Your task to perform on an android device: empty trash in google photos Image 0: 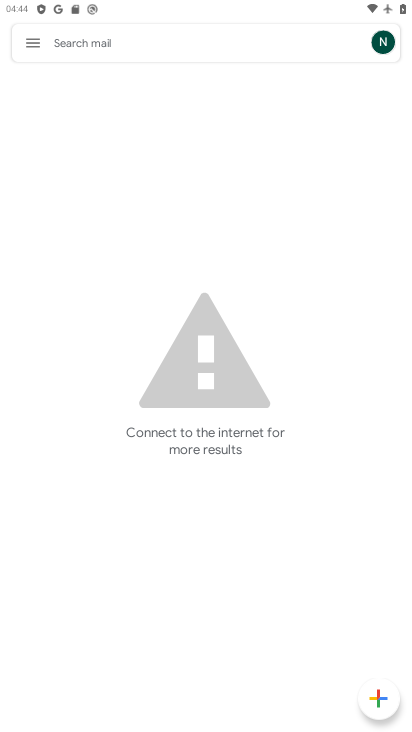
Step 0: press home button
Your task to perform on an android device: empty trash in google photos Image 1: 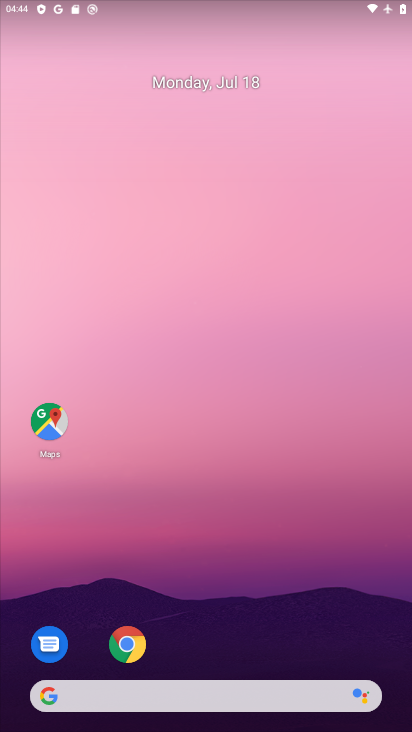
Step 1: drag from (263, 621) to (256, 132)
Your task to perform on an android device: empty trash in google photos Image 2: 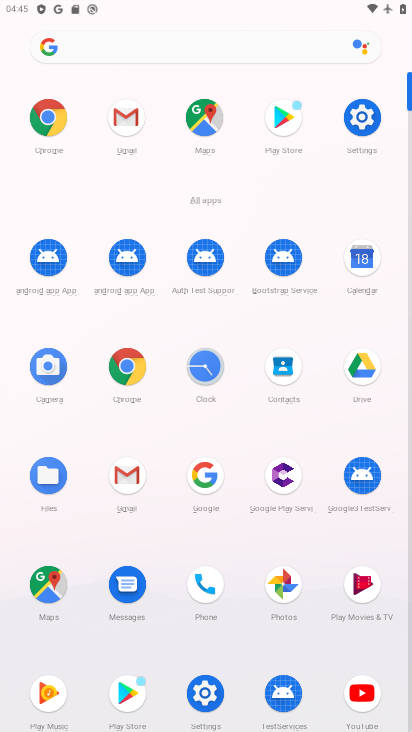
Step 2: click (287, 588)
Your task to perform on an android device: empty trash in google photos Image 3: 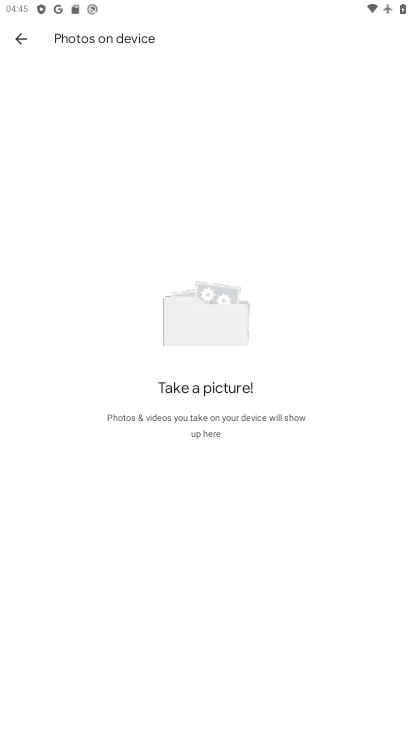
Step 3: click (24, 38)
Your task to perform on an android device: empty trash in google photos Image 4: 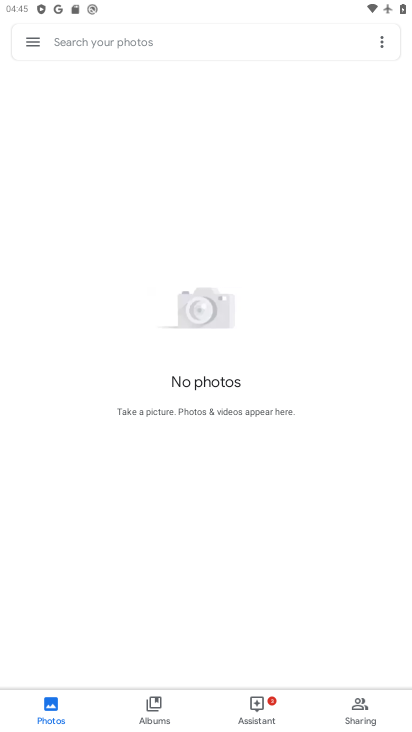
Step 4: click (29, 41)
Your task to perform on an android device: empty trash in google photos Image 5: 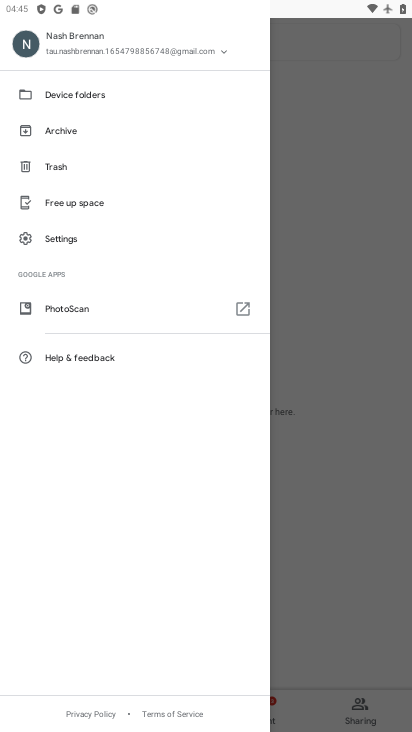
Step 5: click (49, 169)
Your task to perform on an android device: empty trash in google photos Image 6: 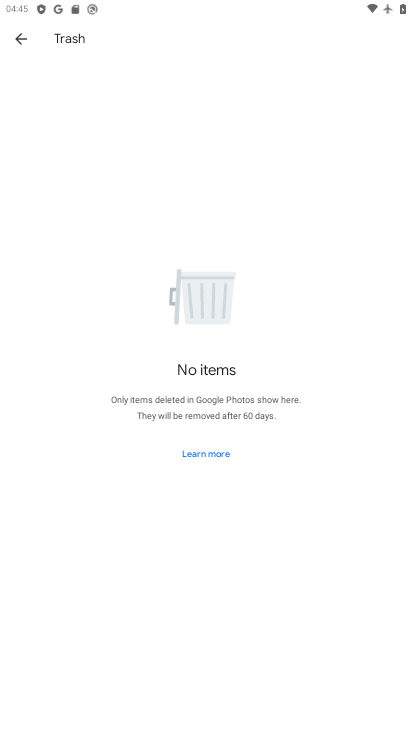
Step 6: task complete